Your task to perform on an android device: Open Youtube and go to "Your channel" Image 0: 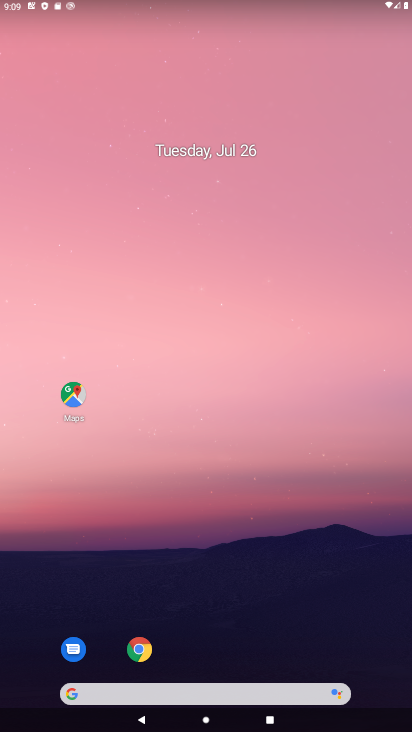
Step 0: drag from (184, 661) to (279, 53)
Your task to perform on an android device: Open Youtube and go to "Your channel" Image 1: 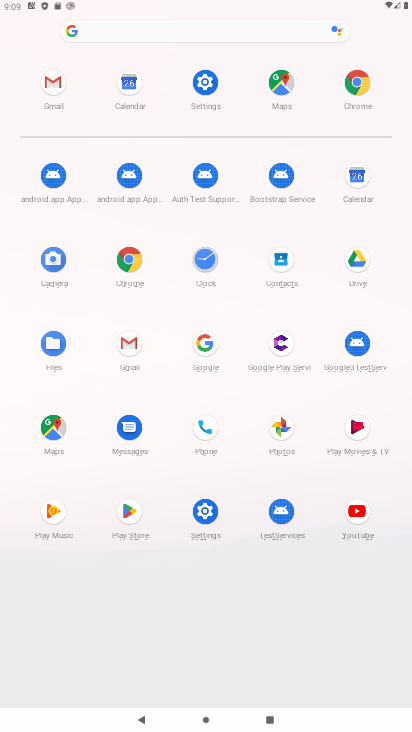
Step 1: click (356, 503)
Your task to perform on an android device: Open Youtube and go to "Your channel" Image 2: 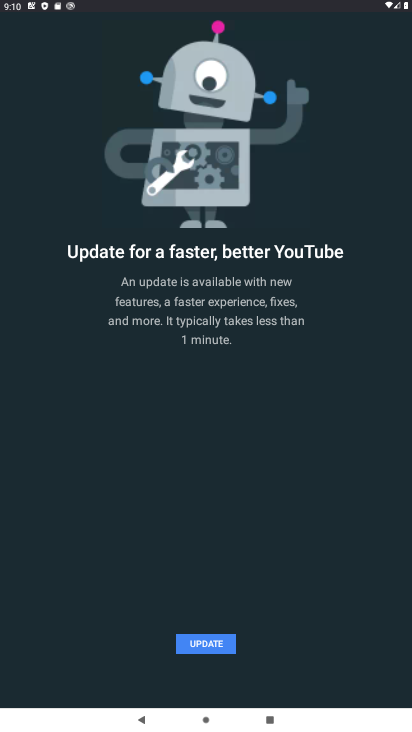
Step 2: press home button
Your task to perform on an android device: Open Youtube and go to "Your channel" Image 3: 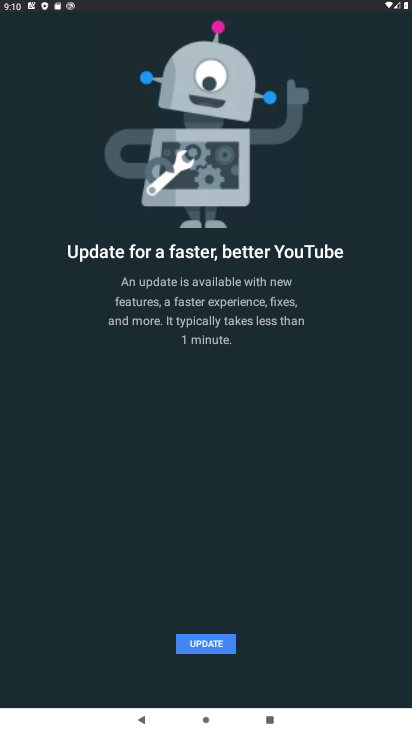
Step 3: press home button
Your task to perform on an android device: Open Youtube and go to "Your channel" Image 4: 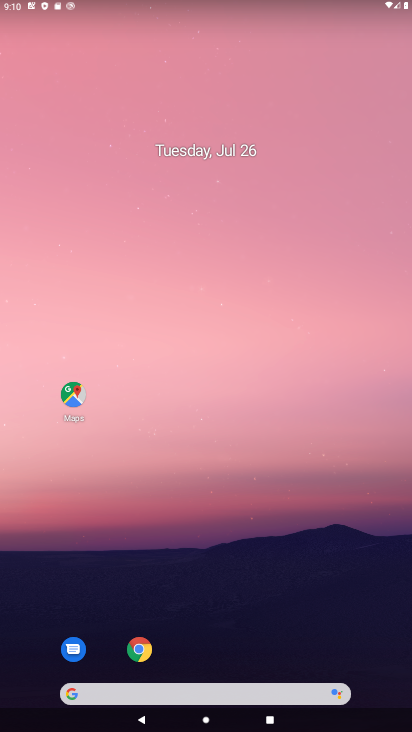
Step 4: drag from (243, 651) to (331, 134)
Your task to perform on an android device: Open Youtube and go to "Your channel" Image 5: 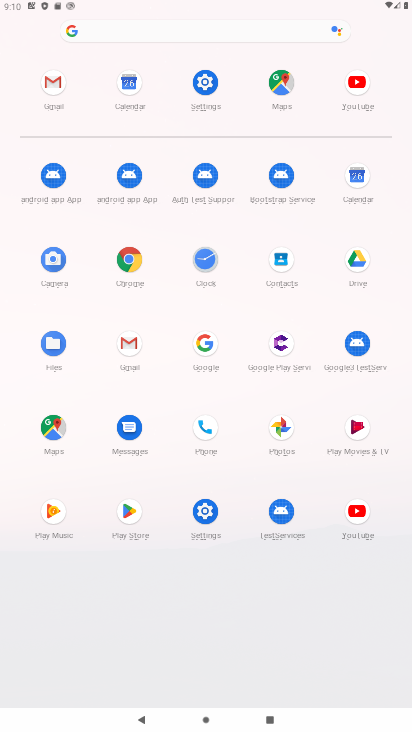
Step 5: click (363, 508)
Your task to perform on an android device: Open Youtube and go to "Your channel" Image 6: 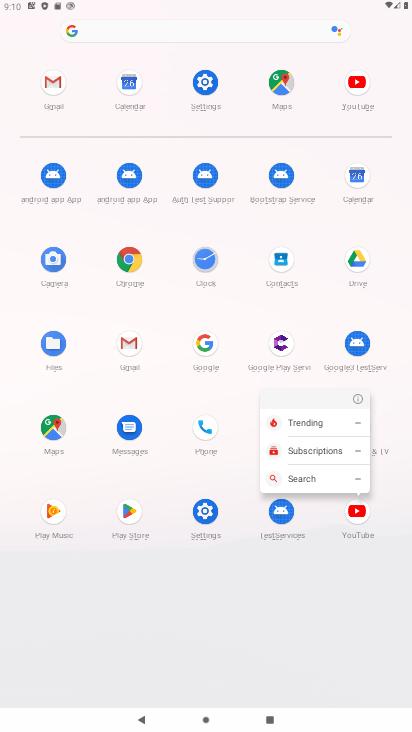
Step 6: click (354, 399)
Your task to perform on an android device: Open Youtube and go to "Your channel" Image 7: 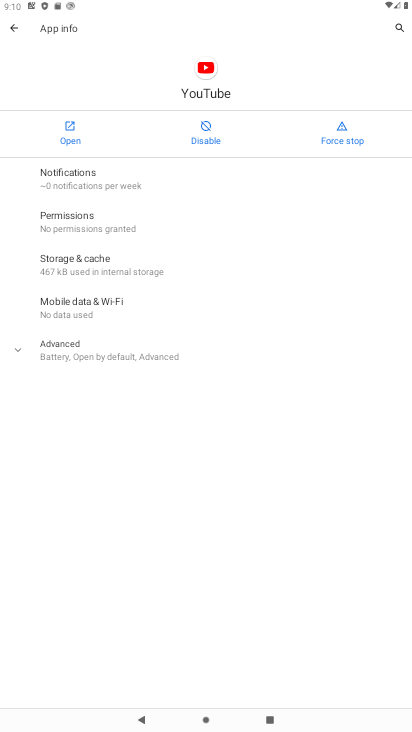
Step 7: click (63, 136)
Your task to perform on an android device: Open Youtube and go to "Your channel" Image 8: 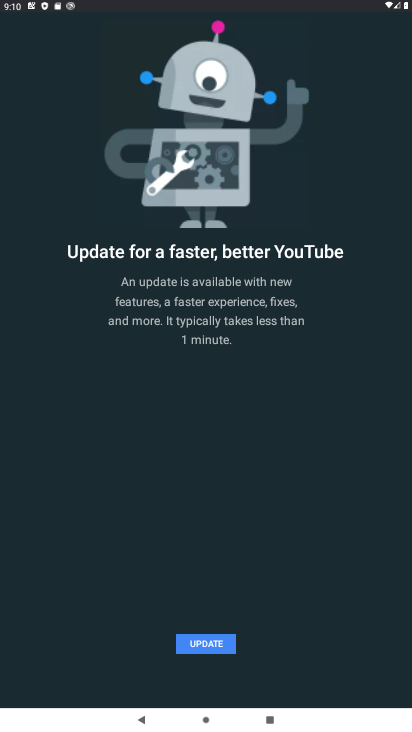
Step 8: task complete